Your task to perform on an android device: star an email in the gmail app Image 0: 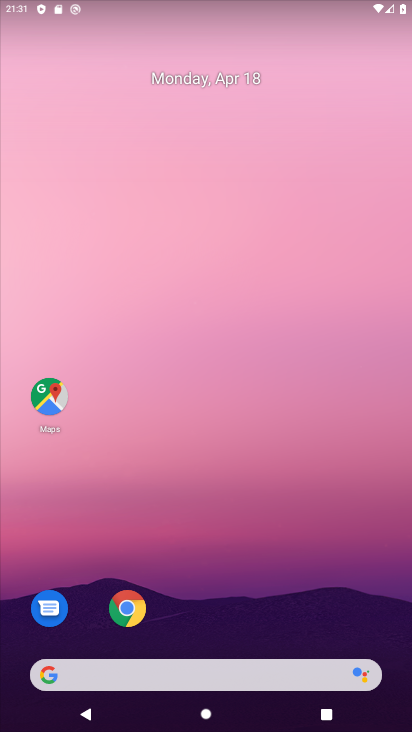
Step 0: drag from (260, 471) to (256, 117)
Your task to perform on an android device: star an email in the gmail app Image 1: 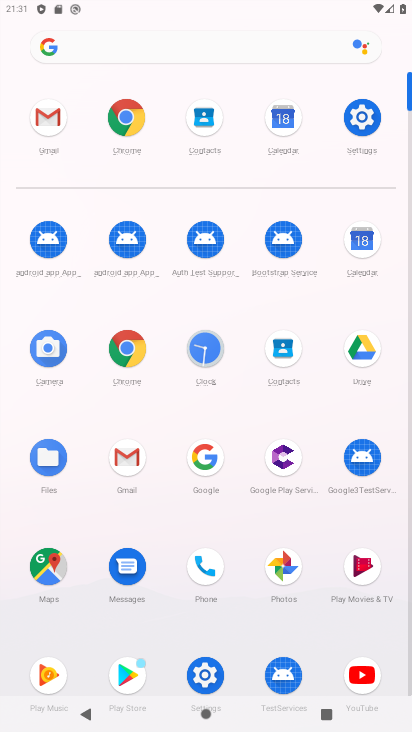
Step 1: click (47, 124)
Your task to perform on an android device: star an email in the gmail app Image 2: 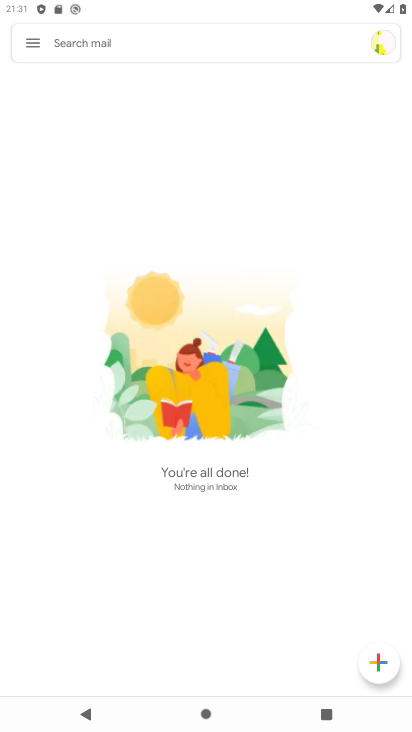
Step 2: click (34, 39)
Your task to perform on an android device: star an email in the gmail app Image 3: 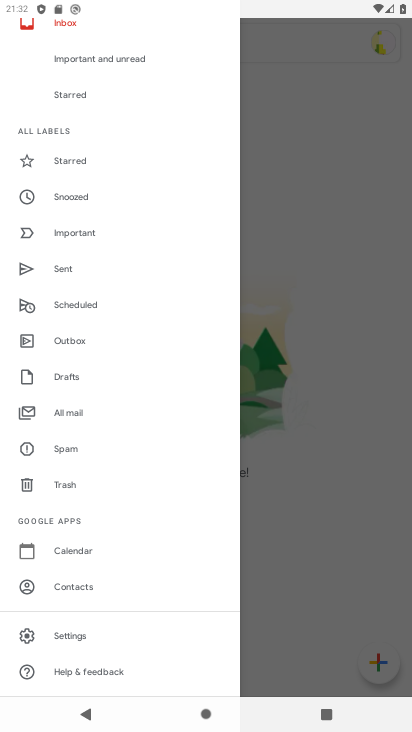
Step 3: click (82, 415)
Your task to perform on an android device: star an email in the gmail app Image 4: 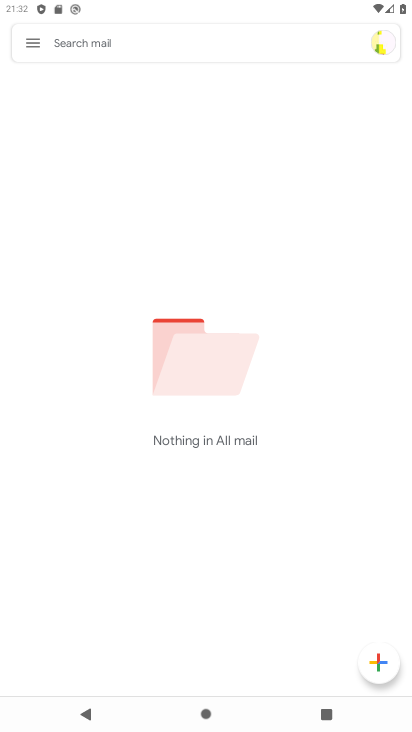
Step 4: task complete